Your task to perform on an android device: turn off wifi Image 0: 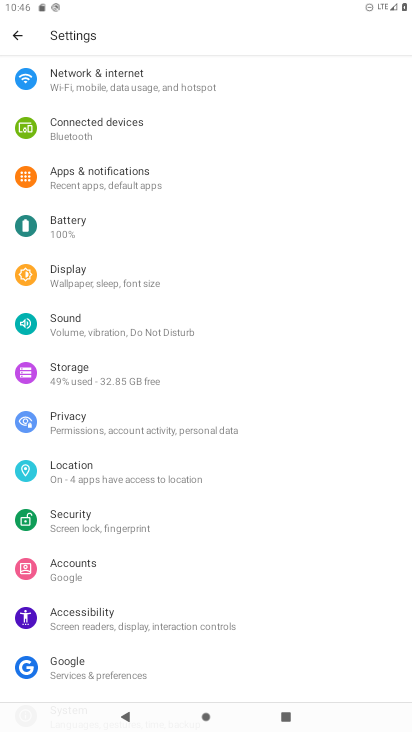
Step 0: press home button
Your task to perform on an android device: turn off wifi Image 1: 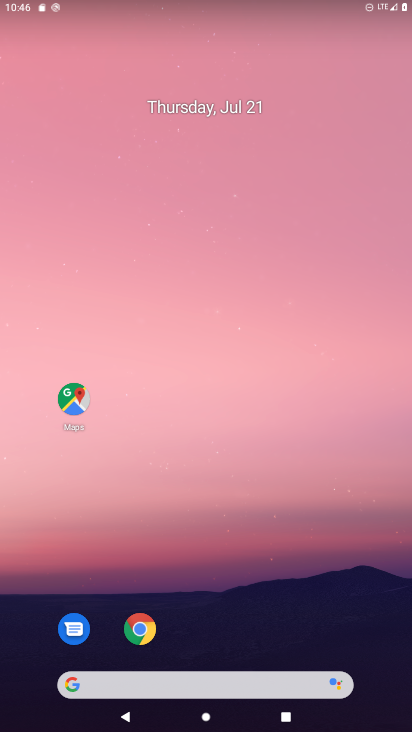
Step 1: drag from (294, 616) to (247, 57)
Your task to perform on an android device: turn off wifi Image 2: 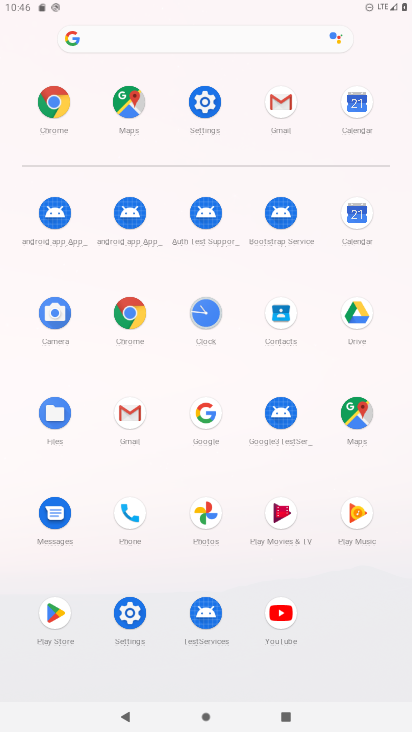
Step 2: click (204, 101)
Your task to perform on an android device: turn off wifi Image 3: 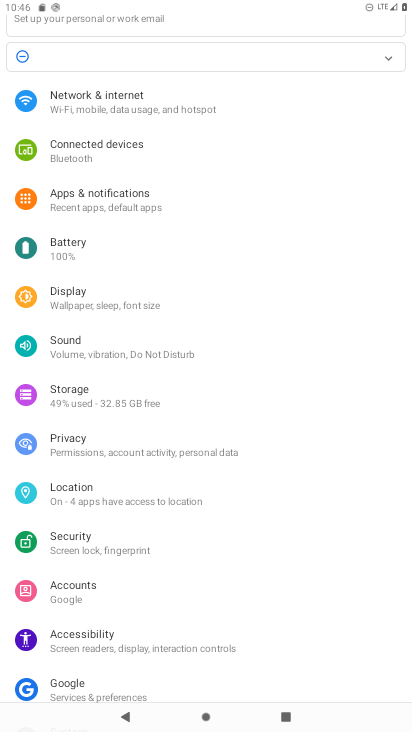
Step 3: click (132, 99)
Your task to perform on an android device: turn off wifi Image 4: 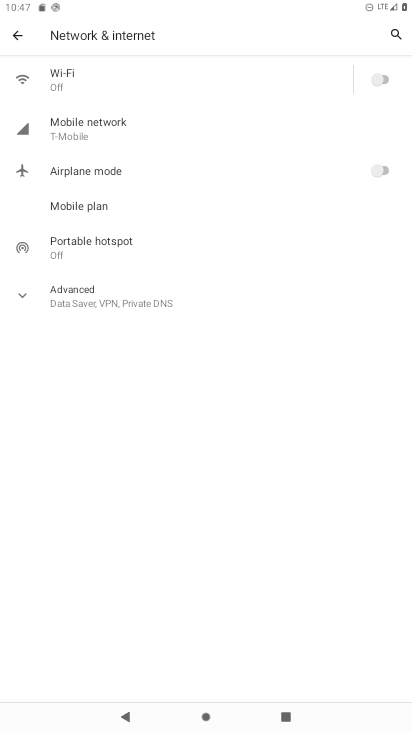
Step 4: task complete